Your task to perform on an android device: Is it going to rain tomorrow? Image 0: 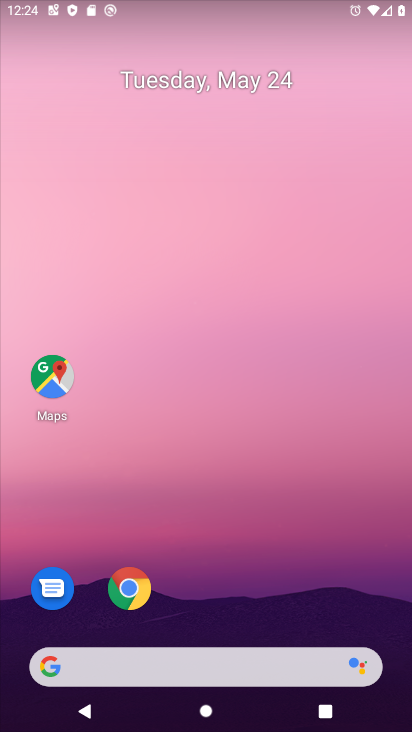
Step 0: drag from (36, 462) to (403, 418)
Your task to perform on an android device: Is it going to rain tomorrow? Image 1: 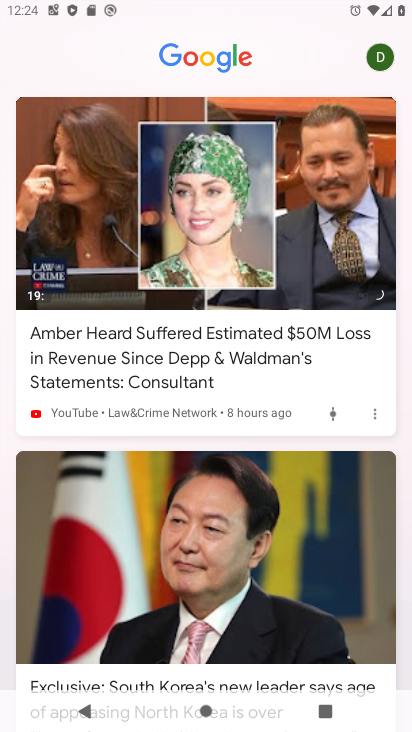
Step 1: drag from (295, 204) to (304, 566)
Your task to perform on an android device: Is it going to rain tomorrow? Image 2: 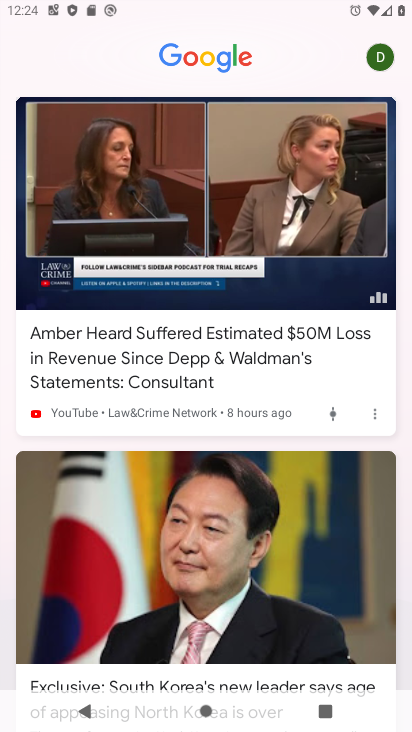
Step 2: press home button
Your task to perform on an android device: Is it going to rain tomorrow? Image 3: 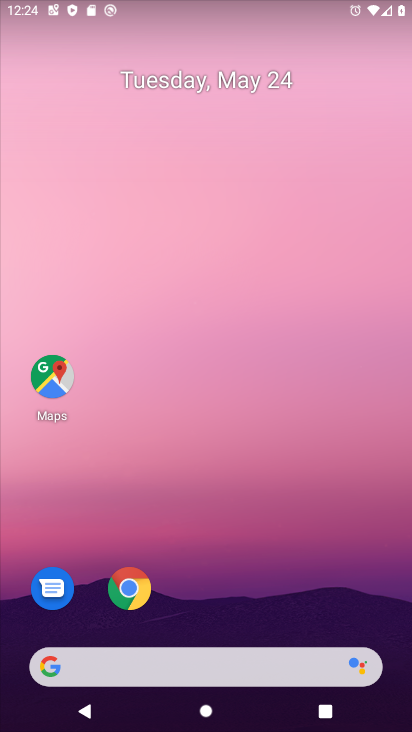
Step 3: click (158, 660)
Your task to perform on an android device: Is it going to rain tomorrow? Image 4: 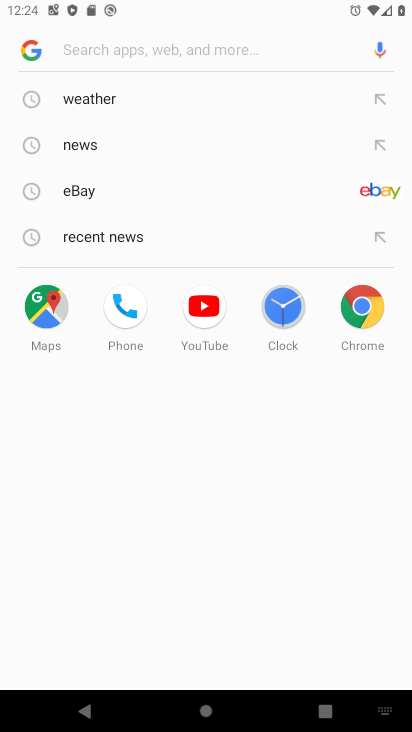
Step 4: click (114, 101)
Your task to perform on an android device: Is it going to rain tomorrow? Image 5: 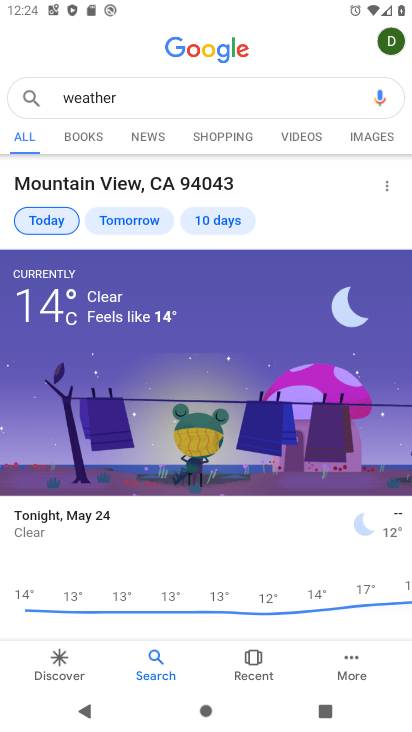
Step 5: click (144, 236)
Your task to perform on an android device: Is it going to rain tomorrow? Image 6: 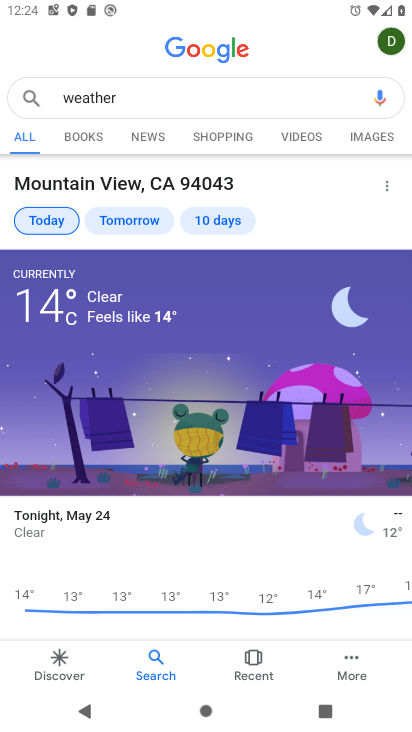
Step 6: click (137, 228)
Your task to perform on an android device: Is it going to rain tomorrow? Image 7: 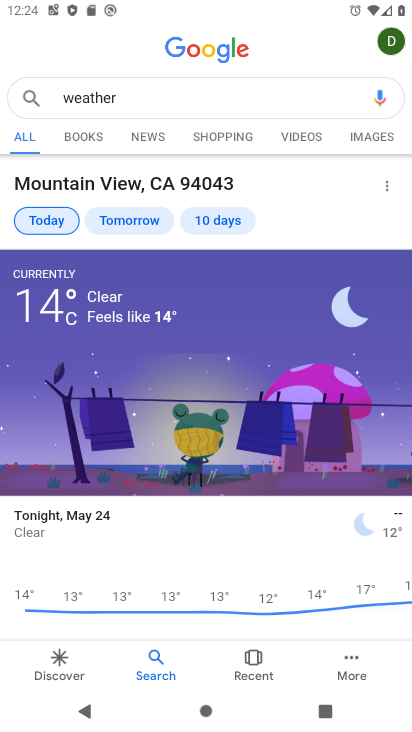
Step 7: click (150, 229)
Your task to perform on an android device: Is it going to rain tomorrow? Image 8: 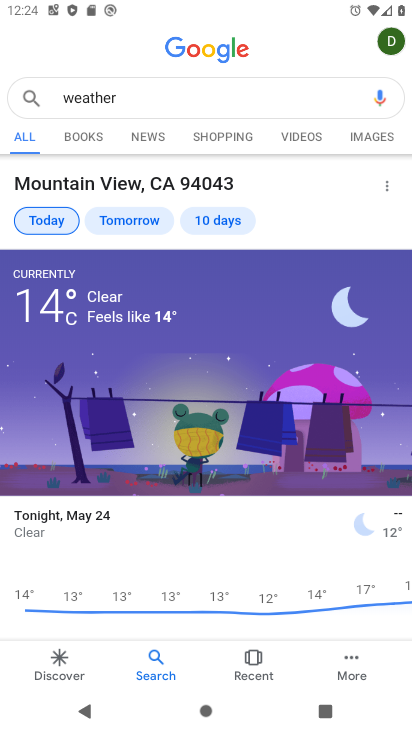
Step 8: click (149, 229)
Your task to perform on an android device: Is it going to rain tomorrow? Image 9: 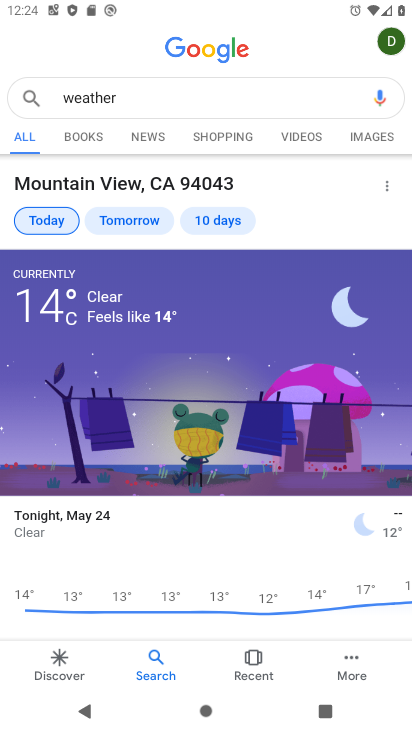
Step 9: drag from (189, 598) to (336, 72)
Your task to perform on an android device: Is it going to rain tomorrow? Image 10: 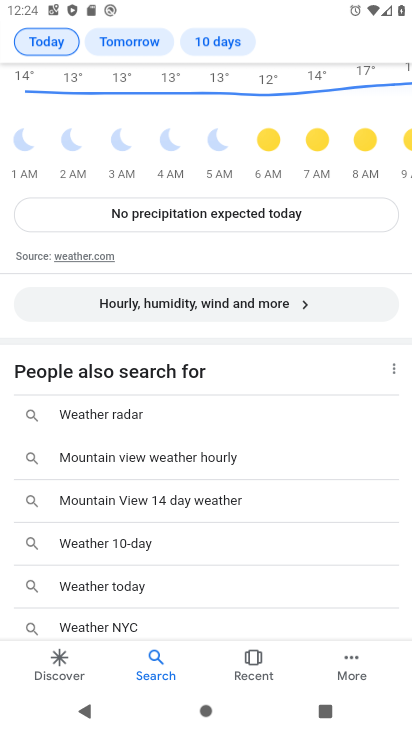
Step 10: drag from (167, 617) to (286, 108)
Your task to perform on an android device: Is it going to rain tomorrow? Image 11: 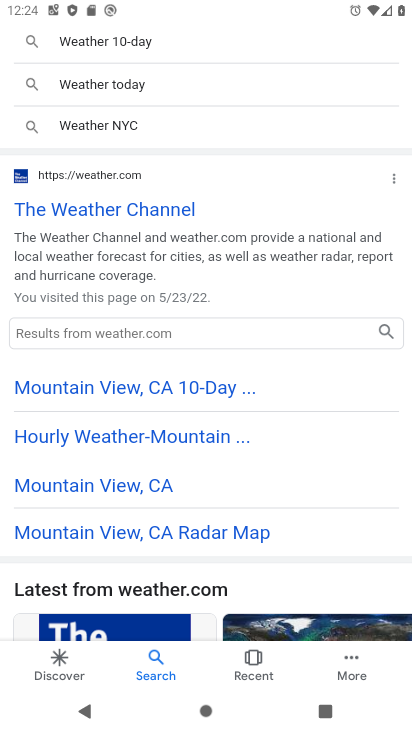
Step 11: click (156, 213)
Your task to perform on an android device: Is it going to rain tomorrow? Image 12: 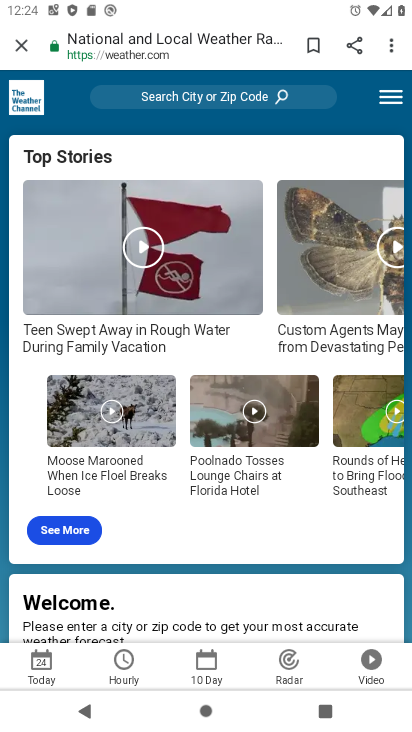
Step 12: click (209, 671)
Your task to perform on an android device: Is it going to rain tomorrow? Image 13: 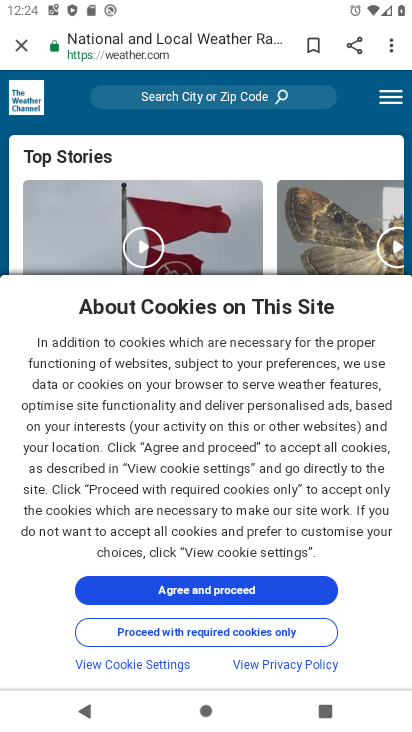
Step 13: click (207, 587)
Your task to perform on an android device: Is it going to rain tomorrow? Image 14: 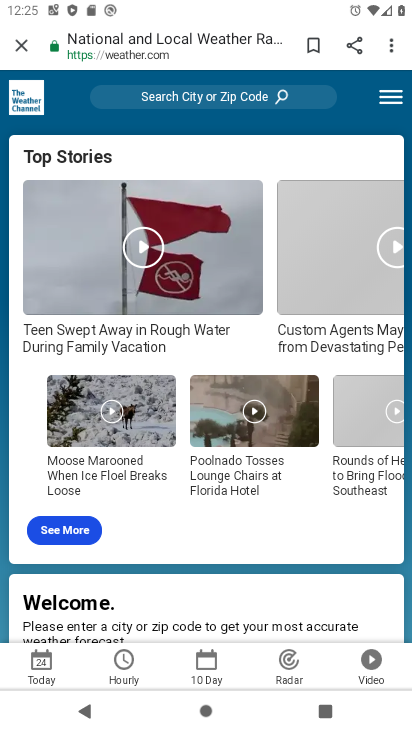
Step 14: click (209, 671)
Your task to perform on an android device: Is it going to rain tomorrow? Image 15: 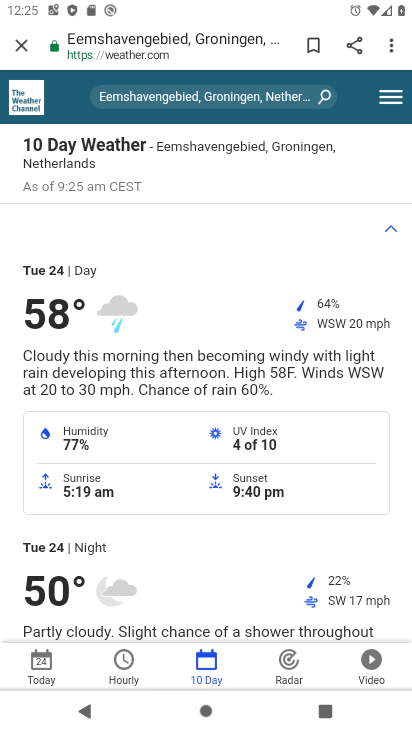
Step 15: task complete